Your task to perform on an android device: toggle wifi Image 0: 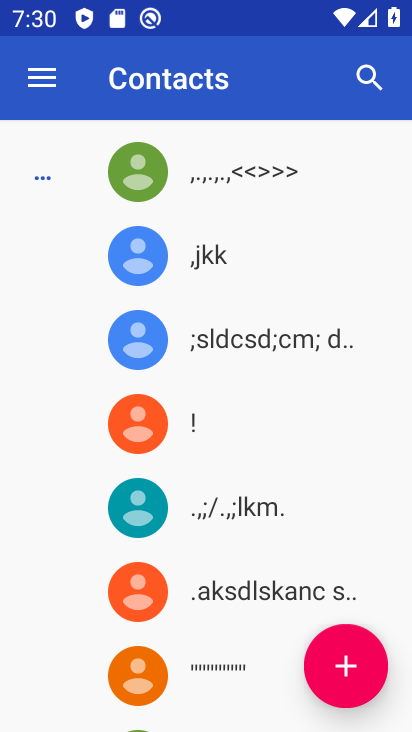
Step 0: press home button
Your task to perform on an android device: toggle wifi Image 1: 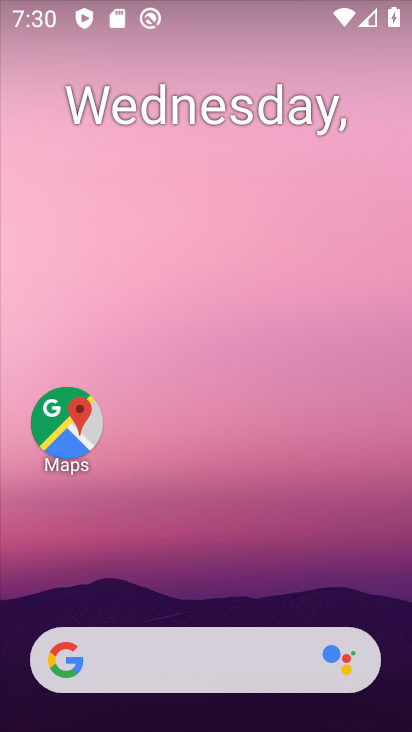
Step 1: drag from (192, 589) to (243, 7)
Your task to perform on an android device: toggle wifi Image 2: 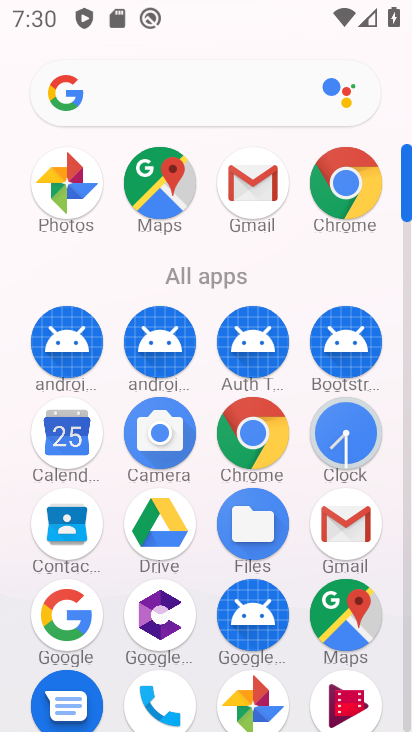
Step 2: drag from (206, 584) to (219, 185)
Your task to perform on an android device: toggle wifi Image 3: 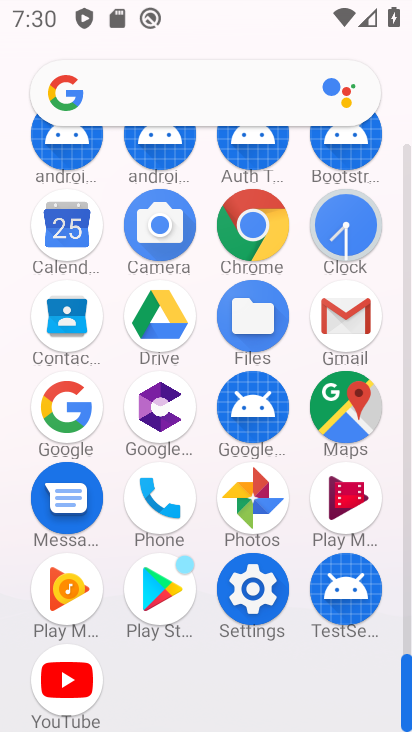
Step 3: click (246, 601)
Your task to perform on an android device: toggle wifi Image 4: 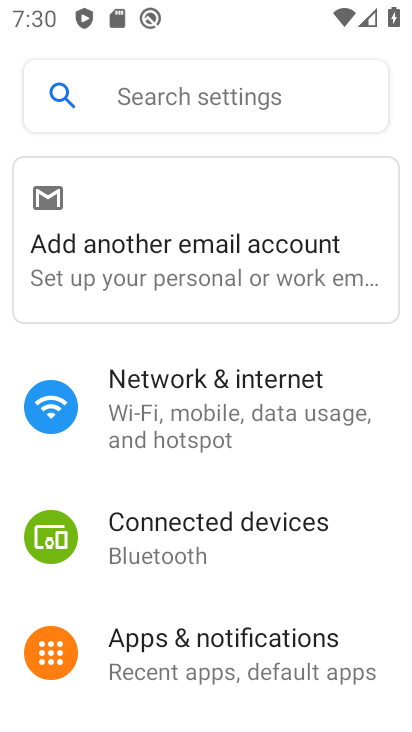
Step 4: click (162, 401)
Your task to perform on an android device: toggle wifi Image 5: 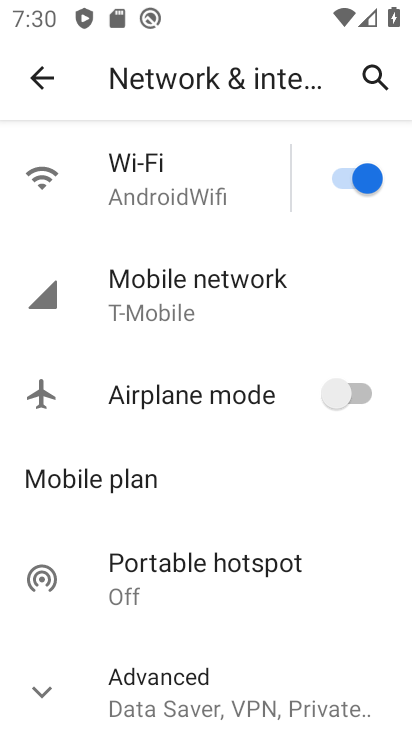
Step 5: click (357, 168)
Your task to perform on an android device: toggle wifi Image 6: 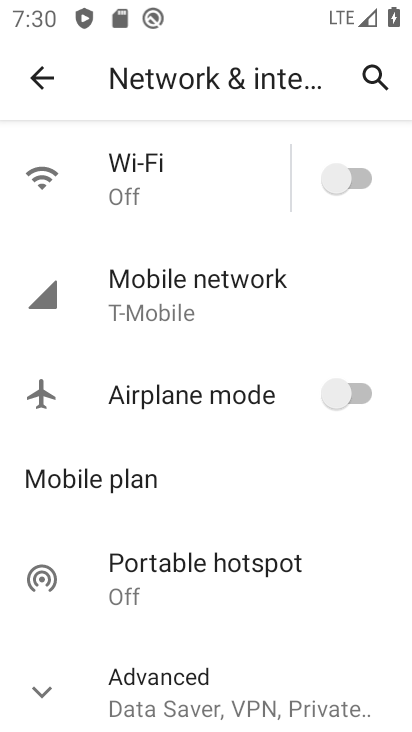
Step 6: task complete